Your task to perform on an android device: change notification settings in the gmail app Image 0: 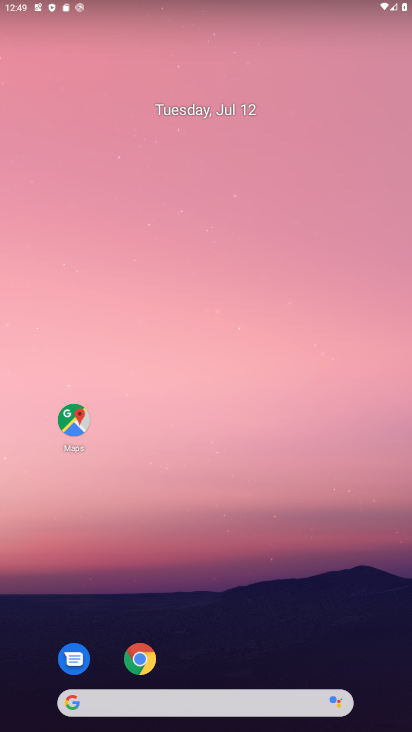
Step 0: drag from (202, 727) to (201, 110)
Your task to perform on an android device: change notification settings in the gmail app Image 1: 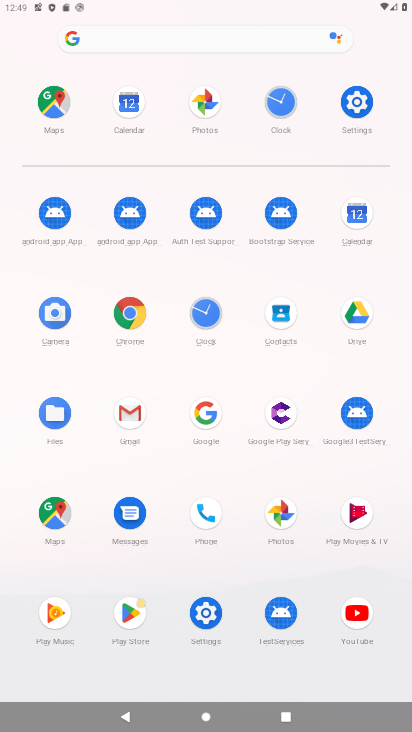
Step 1: click (129, 414)
Your task to perform on an android device: change notification settings in the gmail app Image 2: 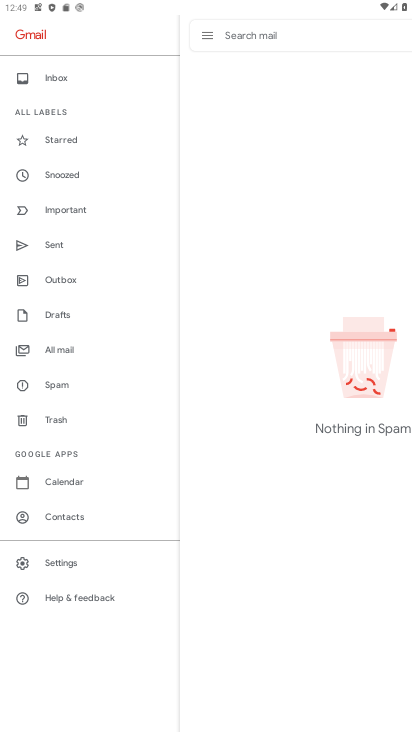
Step 2: click (57, 564)
Your task to perform on an android device: change notification settings in the gmail app Image 3: 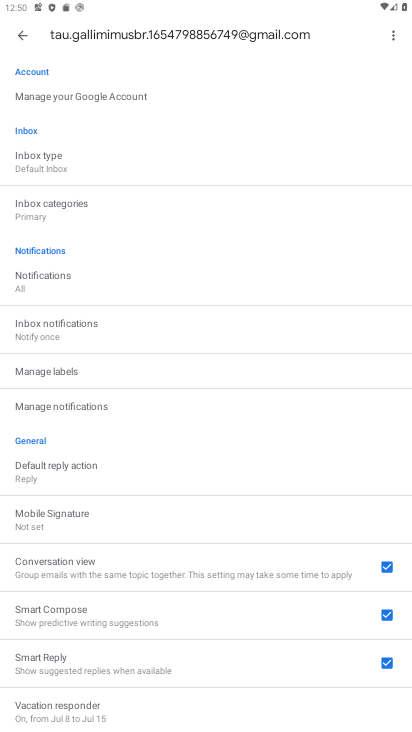
Step 3: click (38, 274)
Your task to perform on an android device: change notification settings in the gmail app Image 4: 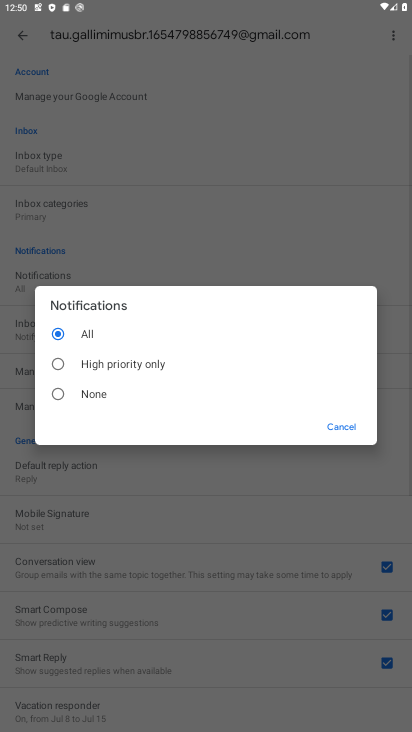
Step 4: click (56, 390)
Your task to perform on an android device: change notification settings in the gmail app Image 5: 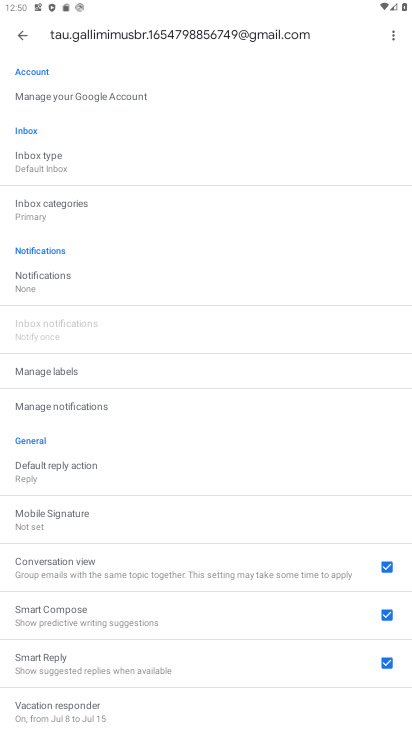
Step 5: task complete